Your task to perform on an android device: open app "Pluto TV - Live TV and Movies" (install if not already installed) and go to login screen Image 0: 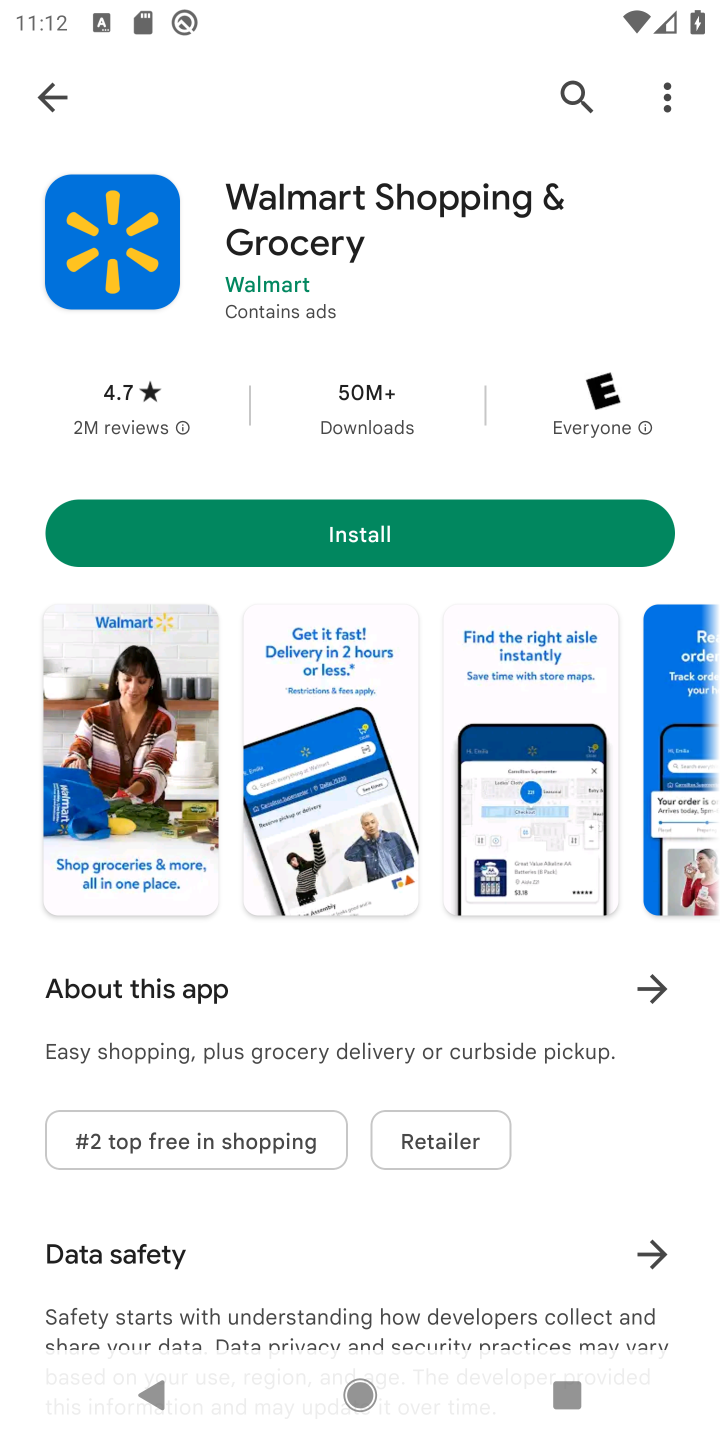
Step 0: click (52, 70)
Your task to perform on an android device: open app "Pluto TV - Live TV and Movies" (install if not already installed) and go to login screen Image 1: 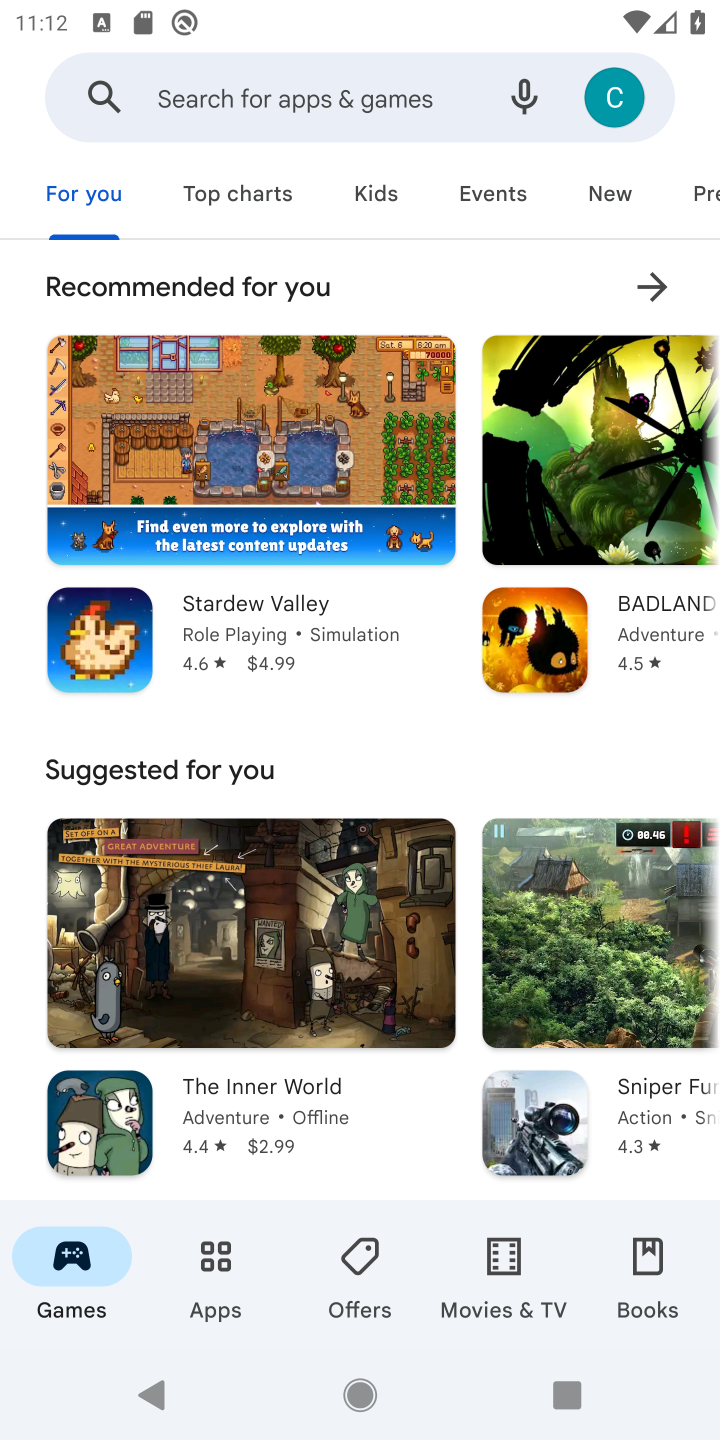
Step 1: click (218, 86)
Your task to perform on an android device: open app "Pluto TV - Live TV and Movies" (install if not already installed) and go to login screen Image 2: 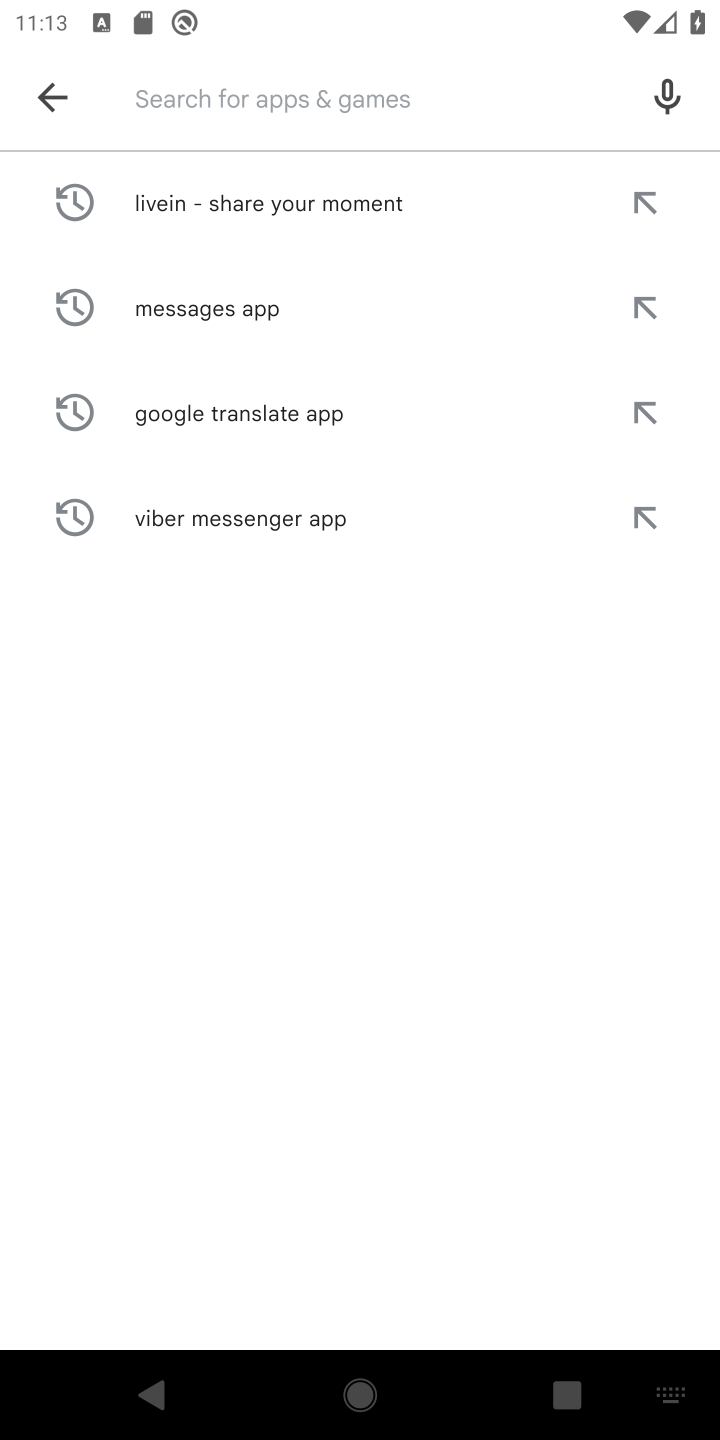
Step 2: click (460, 91)
Your task to perform on an android device: open app "Pluto TV - Live TV and Movies" (install if not already installed) and go to login screen Image 3: 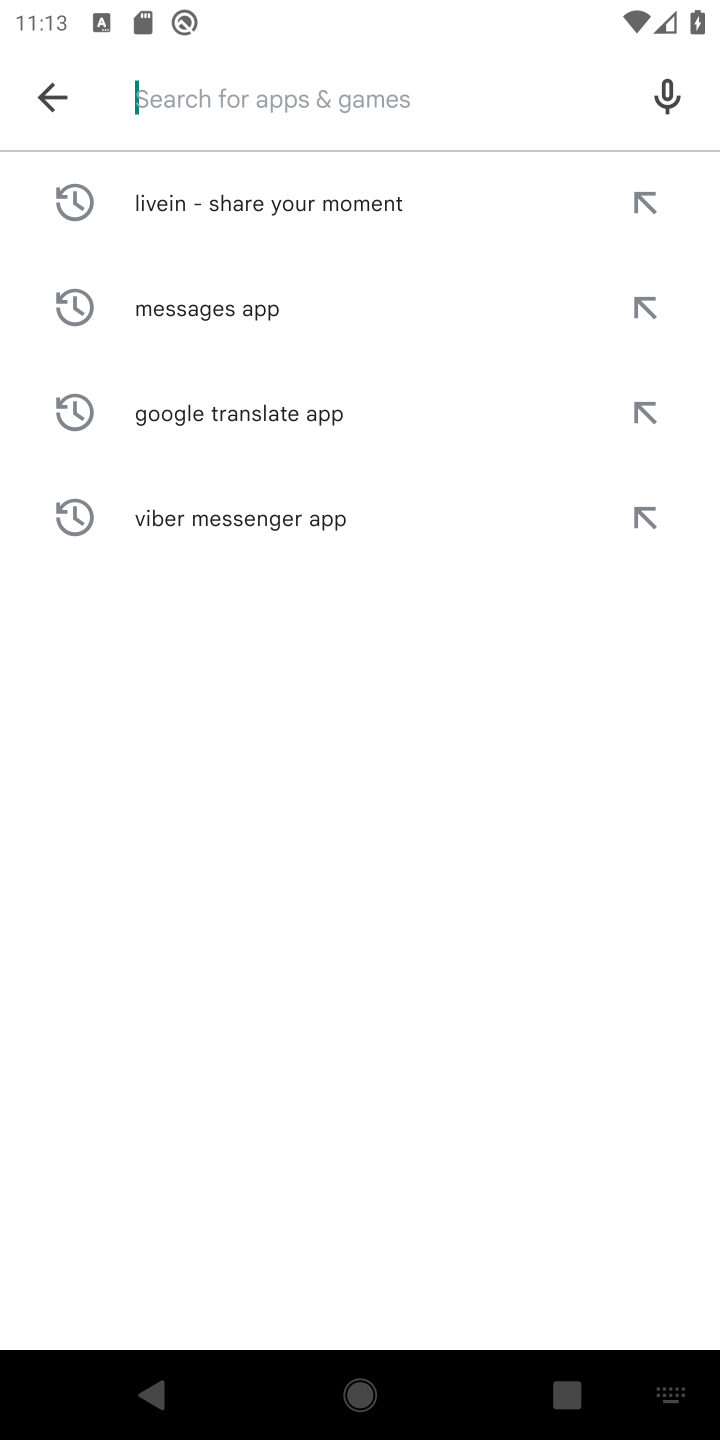
Step 3: type "Pluto TV - Live TV and Movies "
Your task to perform on an android device: open app "Pluto TV - Live TV and Movies" (install if not already installed) and go to login screen Image 4: 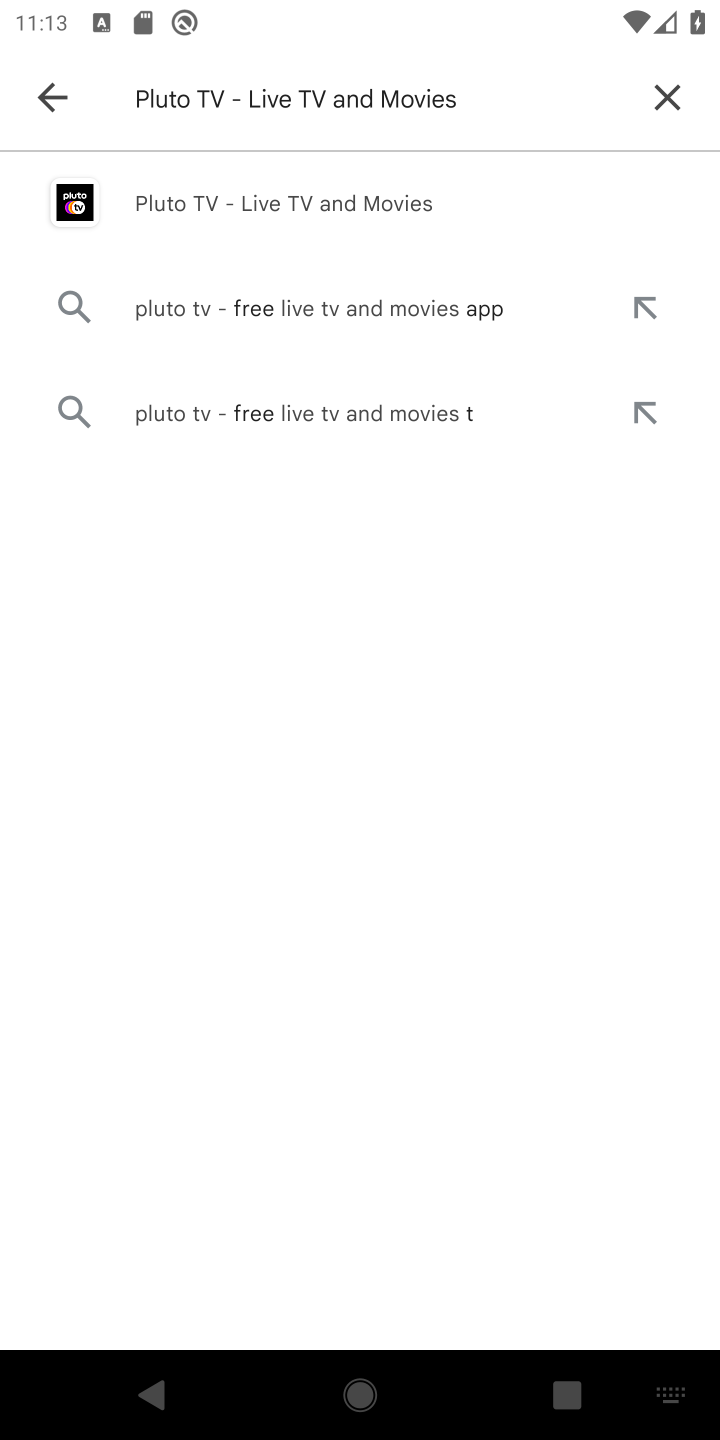
Step 4: click (260, 175)
Your task to perform on an android device: open app "Pluto TV - Live TV and Movies" (install if not already installed) and go to login screen Image 5: 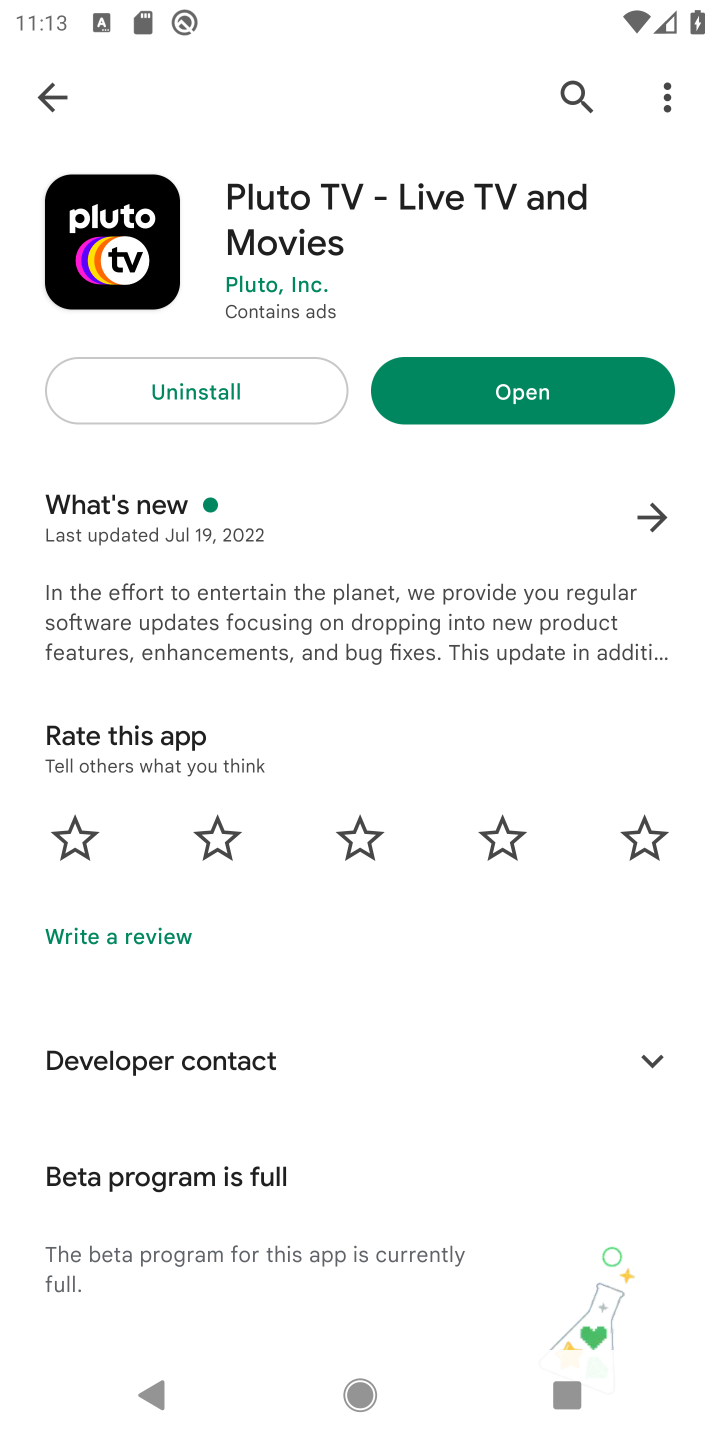
Step 5: click (473, 373)
Your task to perform on an android device: open app "Pluto TV - Live TV and Movies" (install if not already installed) and go to login screen Image 6: 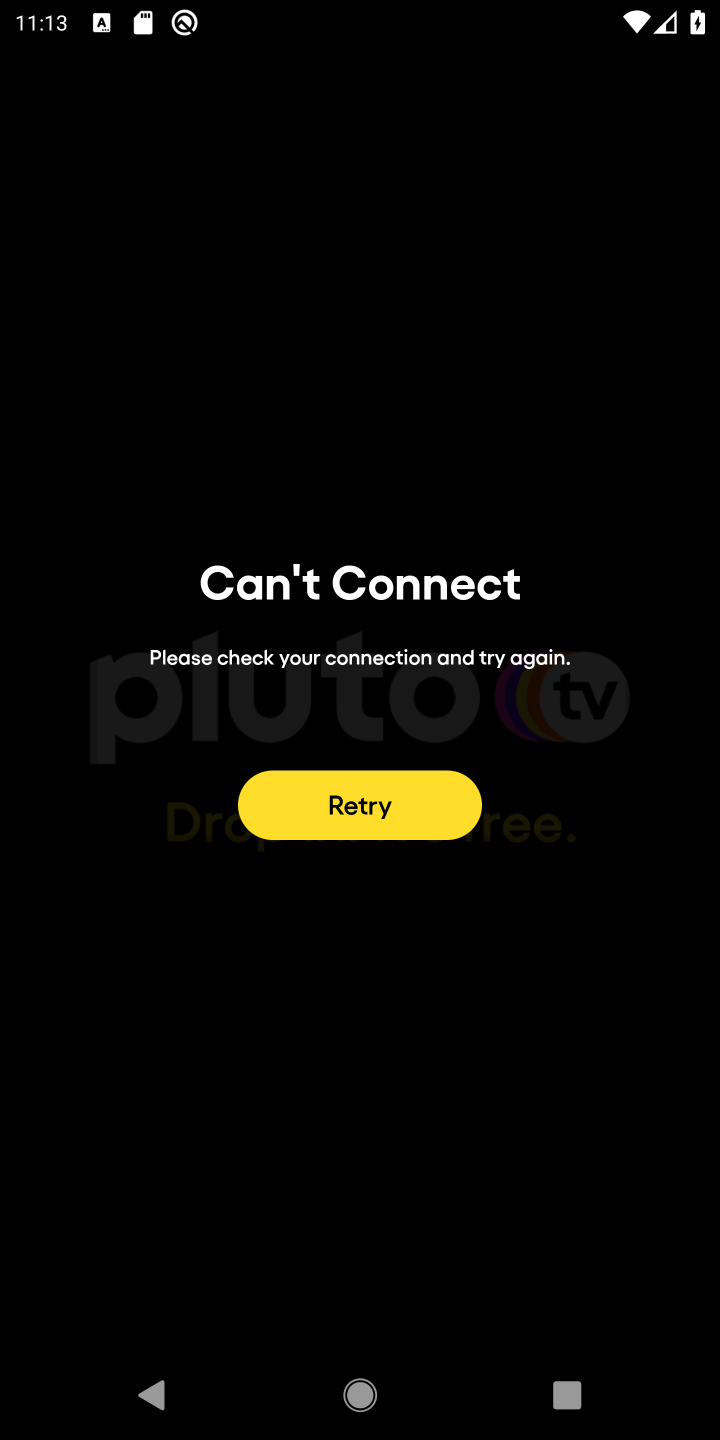
Step 6: task complete